Your task to perform on an android device: find photos in the google photos app Image 0: 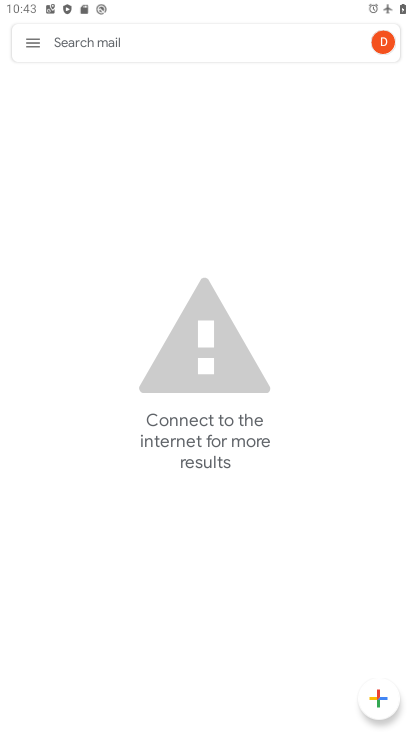
Step 0: press home button
Your task to perform on an android device: find photos in the google photos app Image 1: 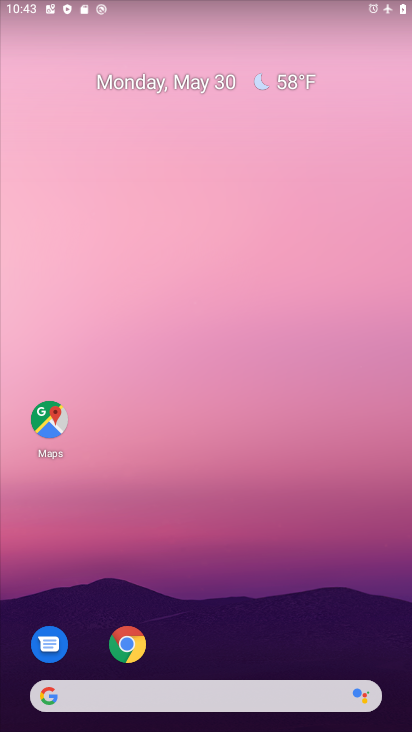
Step 1: drag from (283, 645) to (274, 94)
Your task to perform on an android device: find photos in the google photos app Image 2: 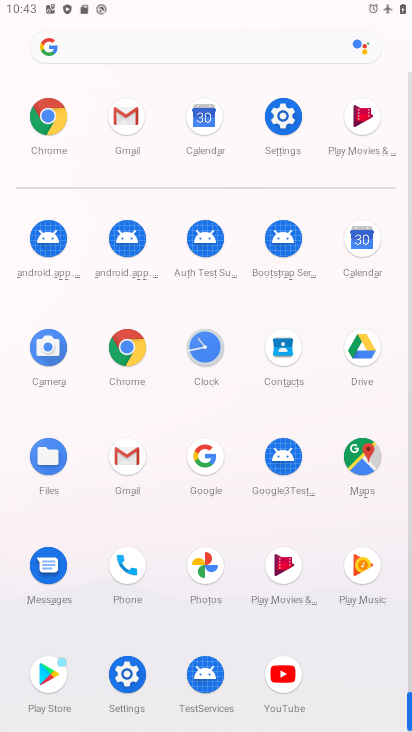
Step 2: click (205, 567)
Your task to perform on an android device: find photos in the google photos app Image 3: 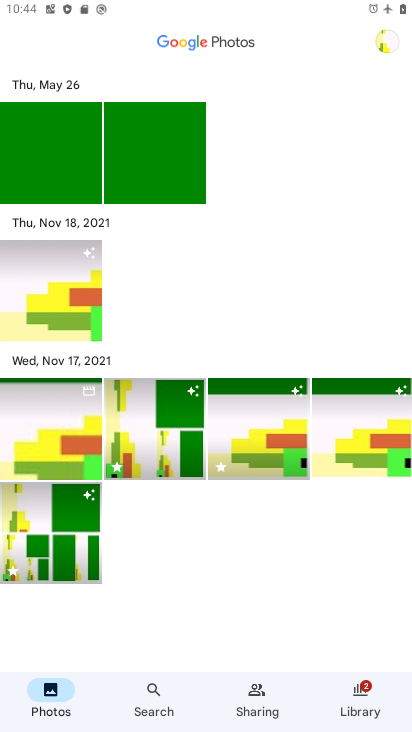
Step 3: task complete